Your task to perform on an android device: turn on the 12-hour format for clock Image 0: 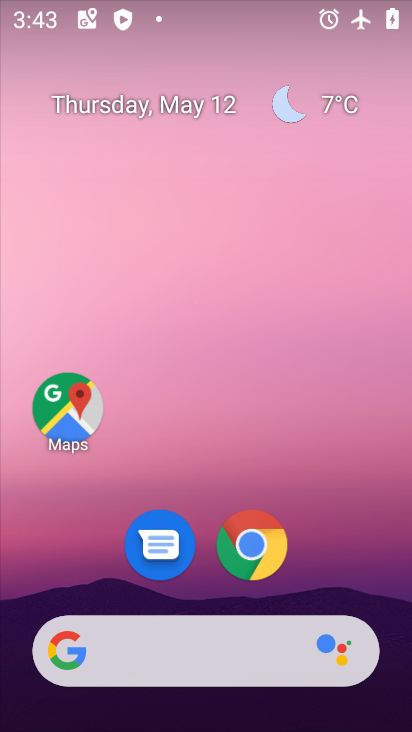
Step 0: press home button
Your task to perform on an android device: turn on the 12-hour format for clock Image 1: 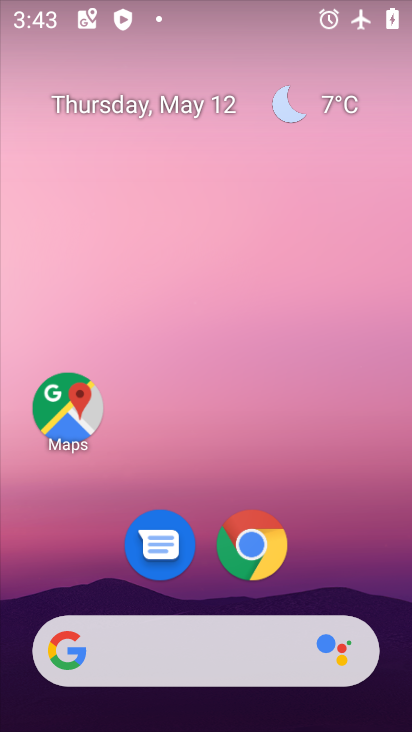
Step 1: drag from (384, 642) to (282, 119)
Your task to perform on an android device: turn on the 12-hour format for clock Image 2: 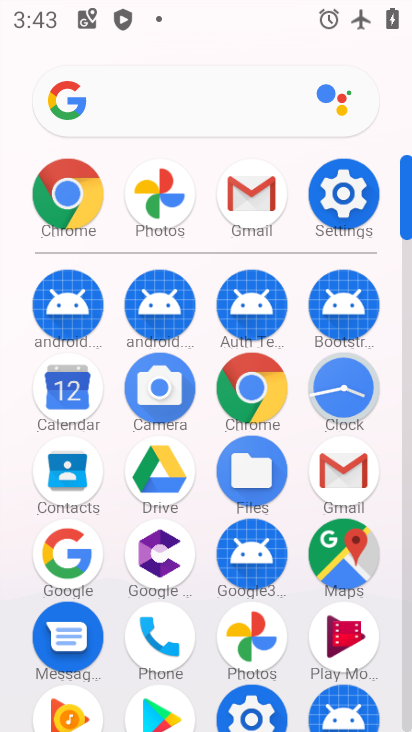
Step 2: click (344, 389)
Your task to perform on an android device: turn on the 12-hour format for clock Image 3: 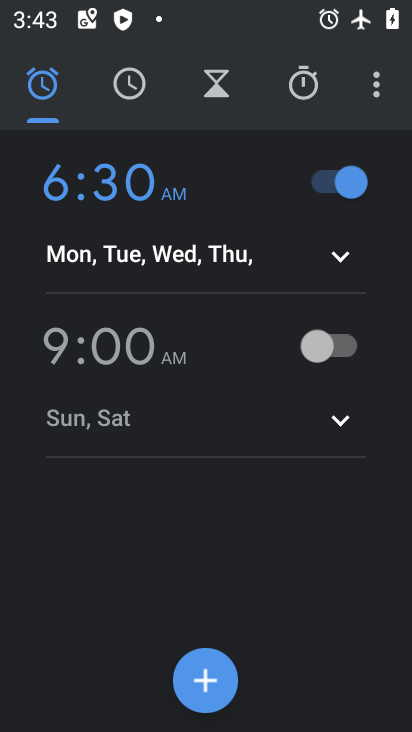
Step 3: click (376, 89)
Your task to perform on an android device: turn on the 12-hour format for clock Image 4: 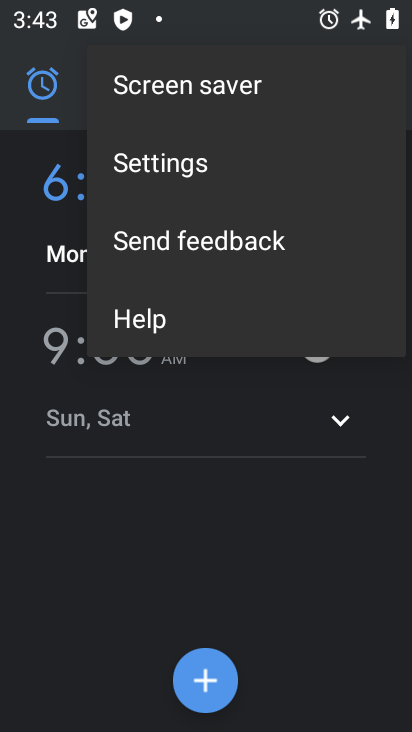
Step 4: click (152, 165)
Your task to perform on an android device: turn on the 12-hour format for clock Image 5: 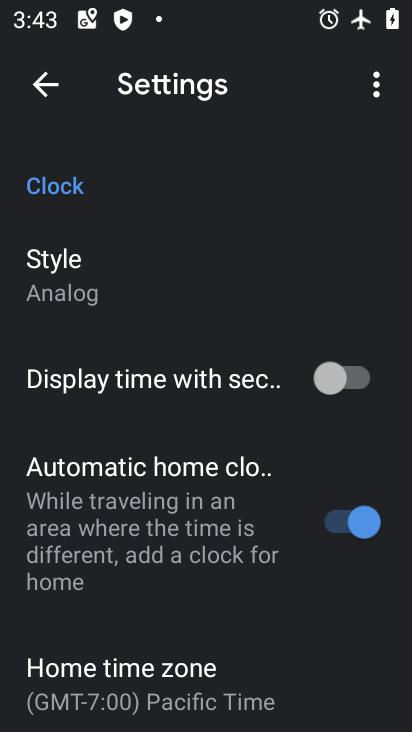
Step 5: drag from (277, 602) to (282, 167)
Your task to perform on an android device: turn on the 12-hour format for clock Image 6: 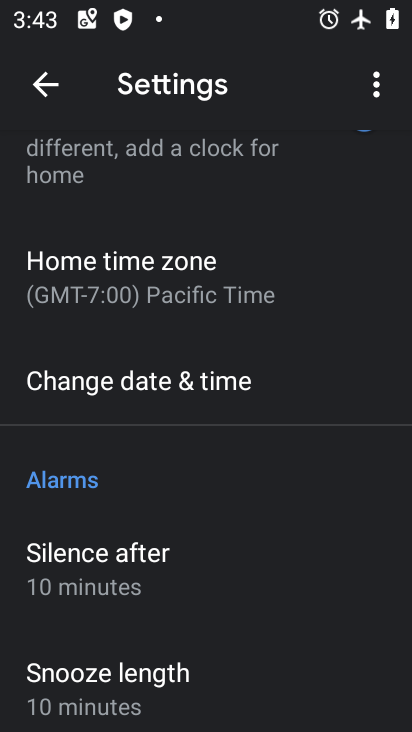
Step 6: click (150, 374)
Your task to perform on an android device: turn on the 12-hour format for clock Image 7: 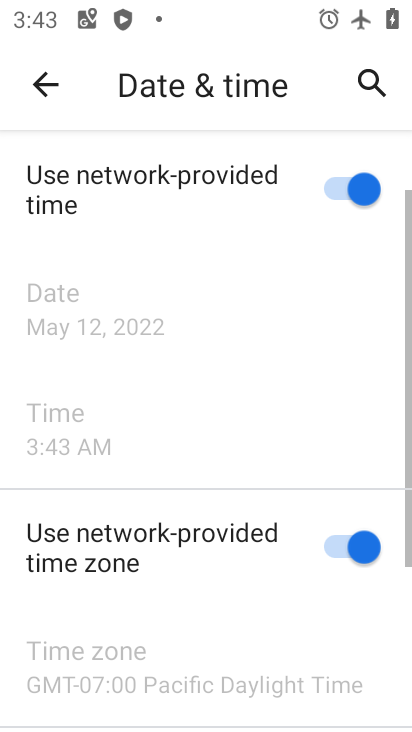
Step 7: task complete